Your task to perform on an android device: Open the calendar and show me this week's events Image 0: 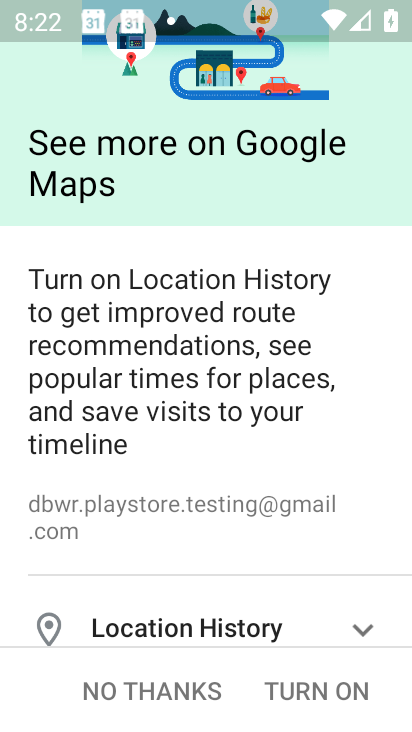
Step 0: task complete